Your task to perform on an android device: turn on improve location accuracy Image 0: 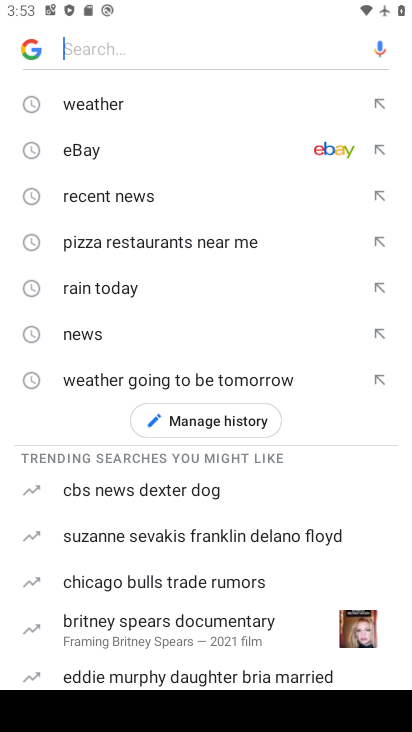
Step 0: press back button
Your task to perform on an android device: turn on improve location accuracy Image 1: 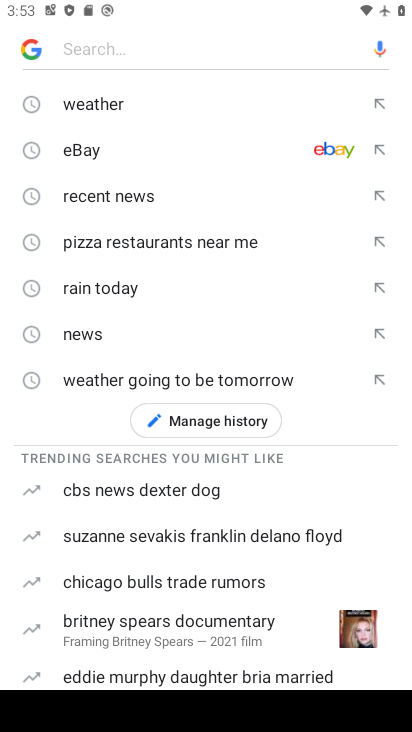
Step 1: press home button
Your task to perform on an android device: turn on improve location accuracy Image 2: 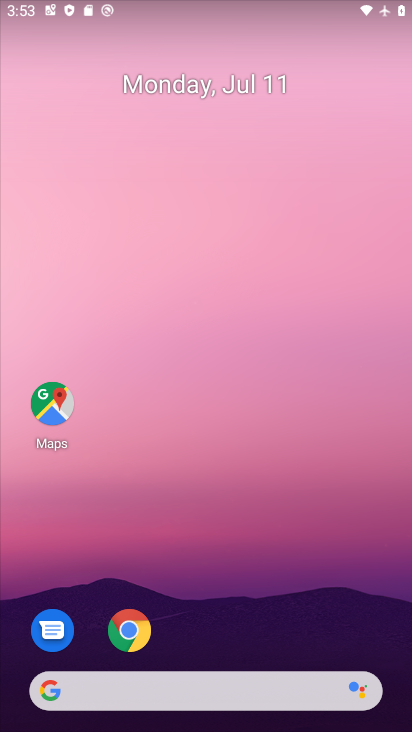
Step 2: press back button
Your task to perform on an android device: turn on improve location accuracy Image 3: 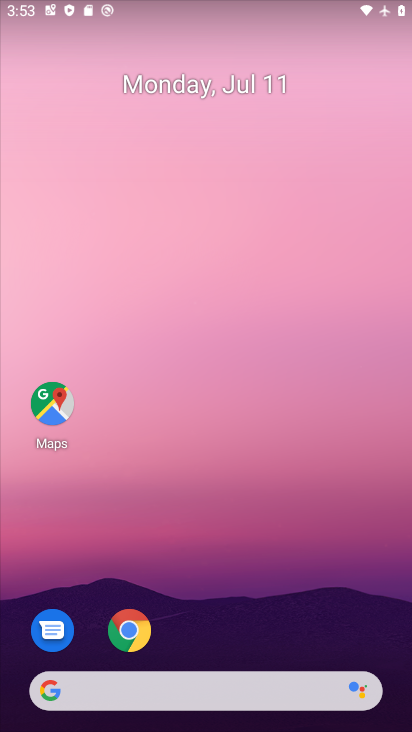
Step 3: drag from (222, 614) to (125, 127)
Your task to perform on an android device: turn on improve location accuracy Image 4: 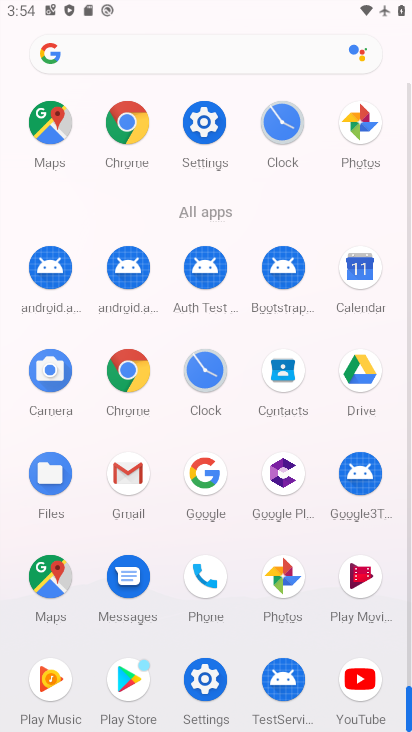
Step 4: click (203, 105)
Your task to perform on an android device: turn on improve location accuracy Image 5: 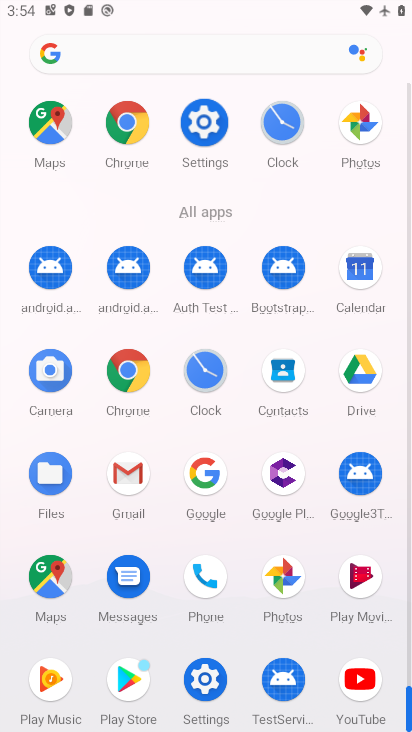
Step 5: click (202, 111)
Your task to perform on an android device: turn on improve location accuracy Image 6: 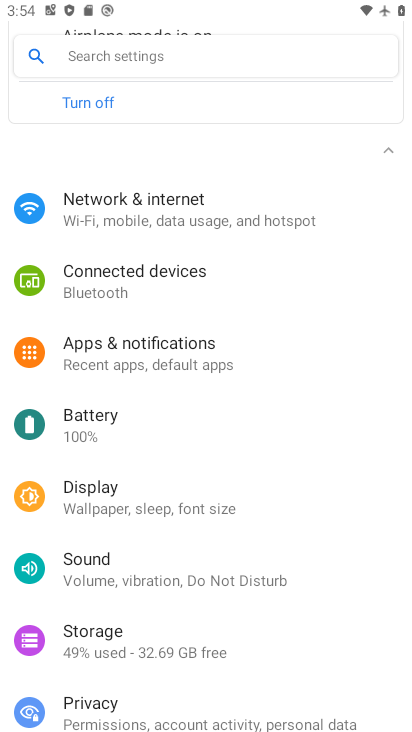
Step 6: click (203, 112)
Your task to perform on an android device: turn on improve location accuracy Image 7: 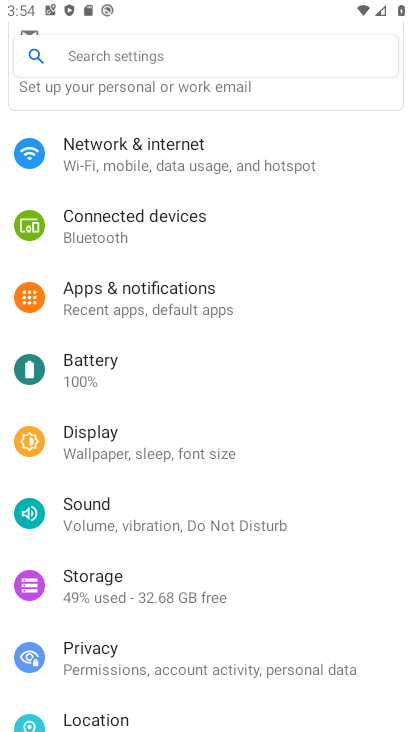
Step 7: drag from (248, 648) to (277, 340)
Your task to perform on an android device: turn on improve location accuracy Image 8: 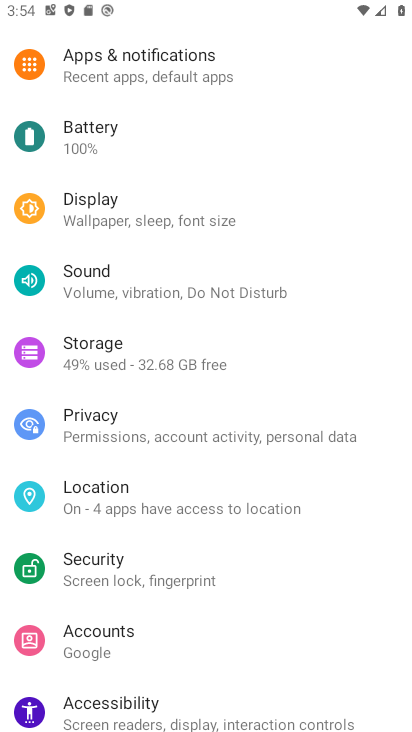
Step 8: click (118, 499)
Your task to perform on an android device: turn on improve location accuracy Image 9: 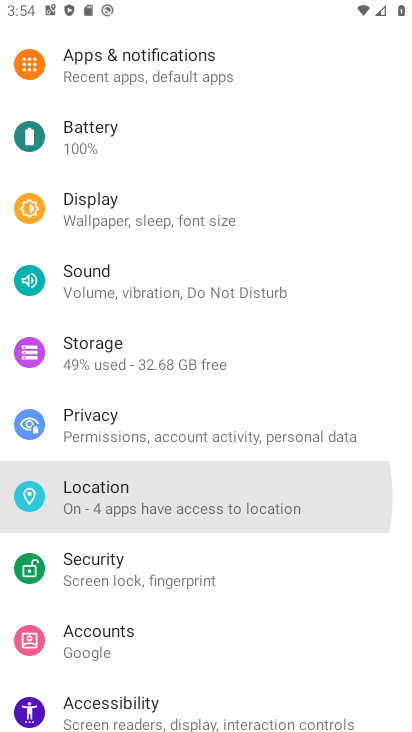
Step 9: click (118, 499)
Your task to perform on an android device: turn on improve location accuracy Image 10: 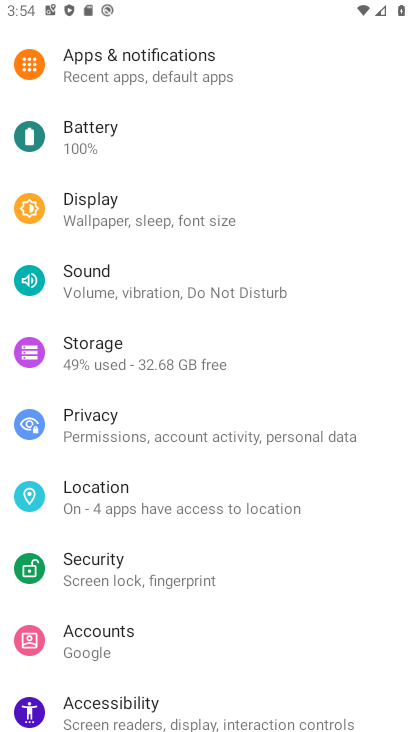
Step 10: click (120, 497)
Your task to perform on an android device: turn on improve location accuracy Image 11: 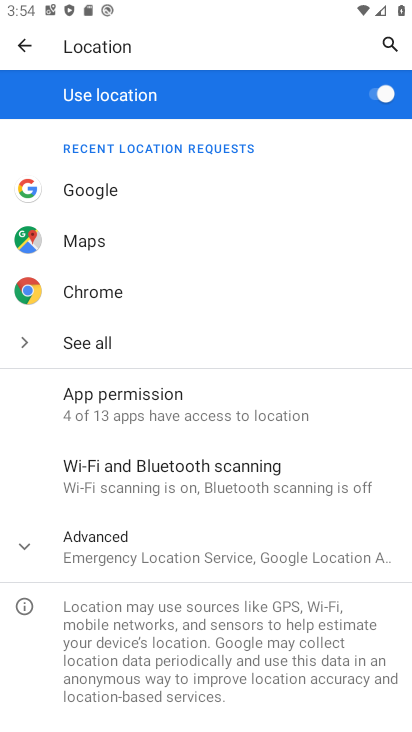
Step 11: click (133, 549)
Your task to perform on an android device: turn on improve location accuracy Image 12: 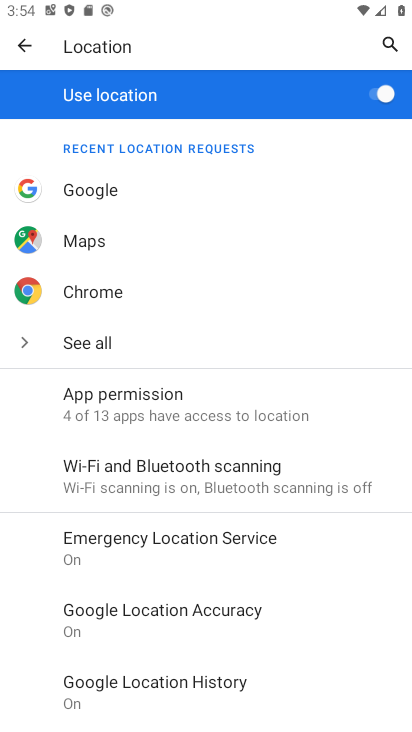
Step 12: click (194, 359)
Your task to perform on an android device: turn on improve location accuracy Image 13: 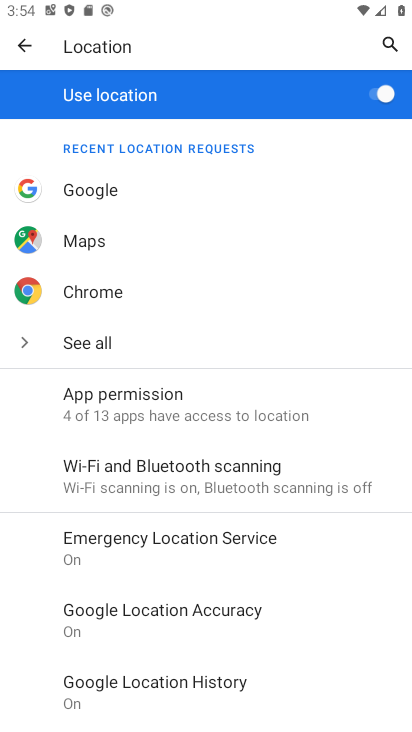
Step 13: drag from (219, 601) to (222, 390)
Your task to perform on an android device: turn on improve location accuracy Image 14: 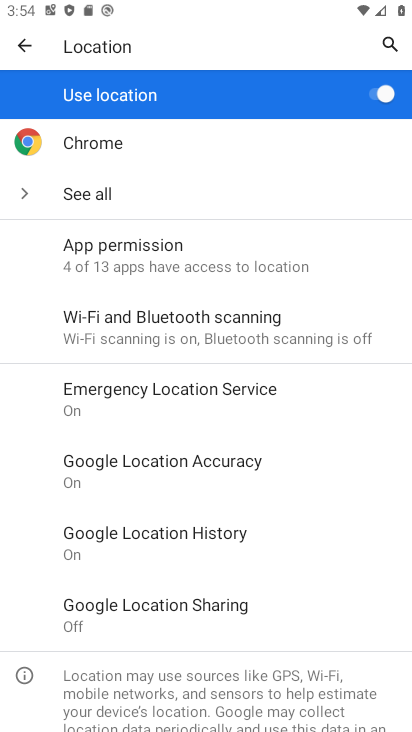
Step 14: click (210, 458)
Your task to perform on an android device: turn on improve location accuracy Image 15: 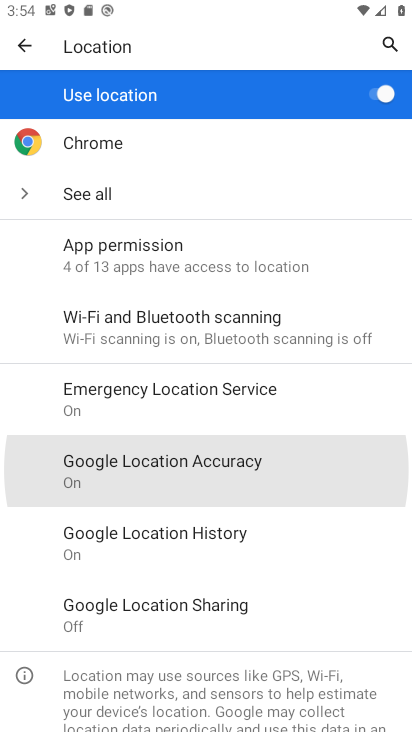
Step 15: click (210, 458)
Your task to perform on an android device: turn on improve location accuracy Image 16: 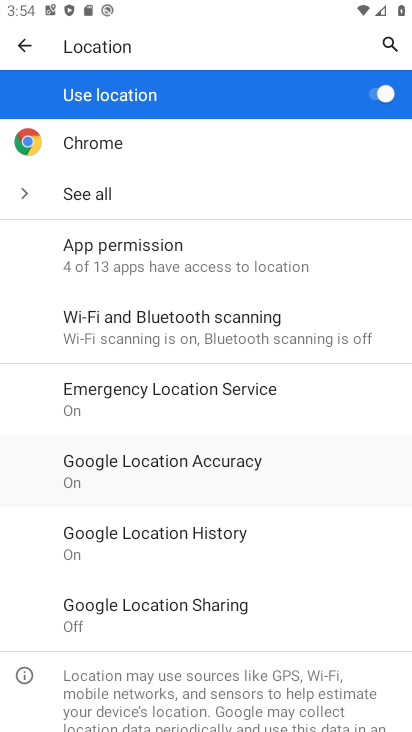
Step 16: click (211, 457)
Your task to perform on an android device: turn on improve location accuracy Image 17: 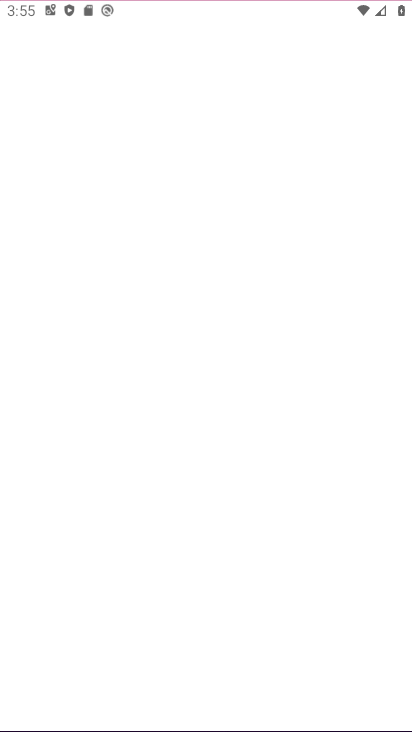
Step 17: click (214, 455)
Your task to perform on an android device: turn on improve location accuracy Image 18: 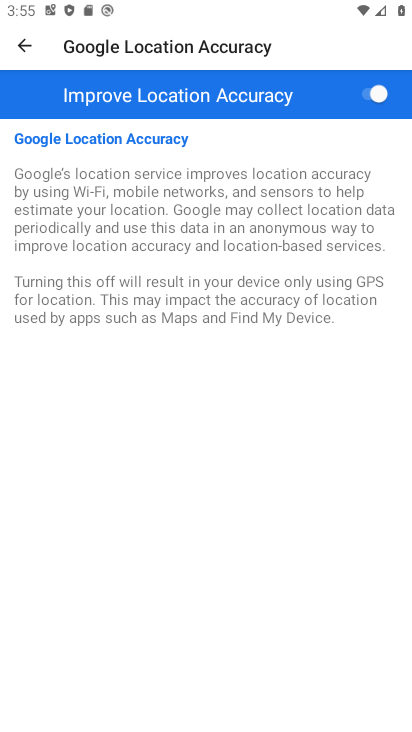
Step 18: task complete